Your task to perform on an android device: Open ESPN.com Image 0: 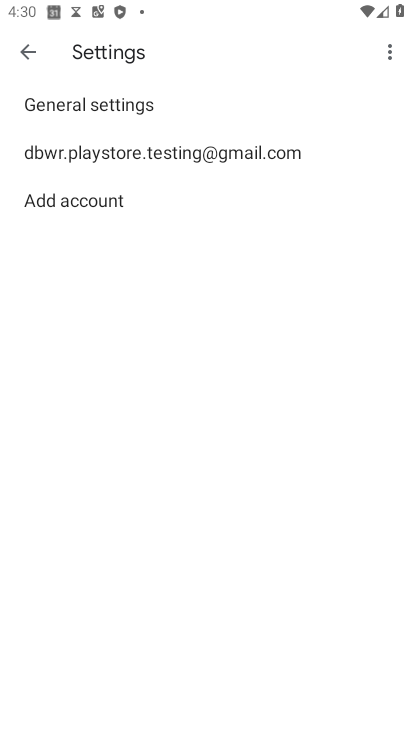
Step 0: click (22, 51)
Your task to perform on an android device: Open ESPN.com Image 1: 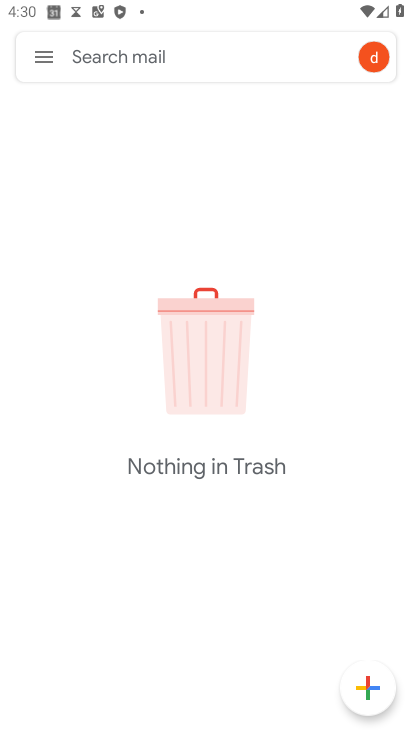
Step 1: click (22, 50)
Your task to perform on an android device: Open ESPN.com Image 2: 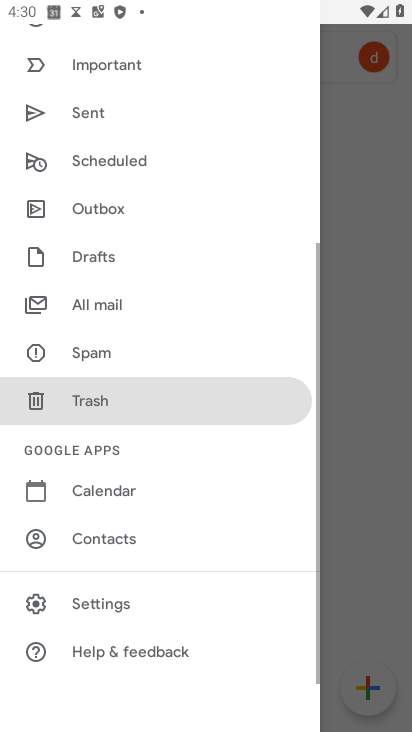
Step 2: click (18, 48)
Your task to perform on an android device: Open ESPN.com Image 3: 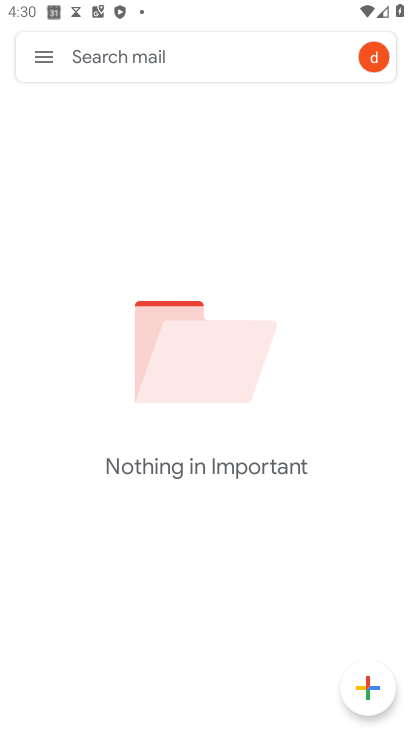
Step 3: press back button
Your task to perform on an android device: Open ESPN.com Image 4: 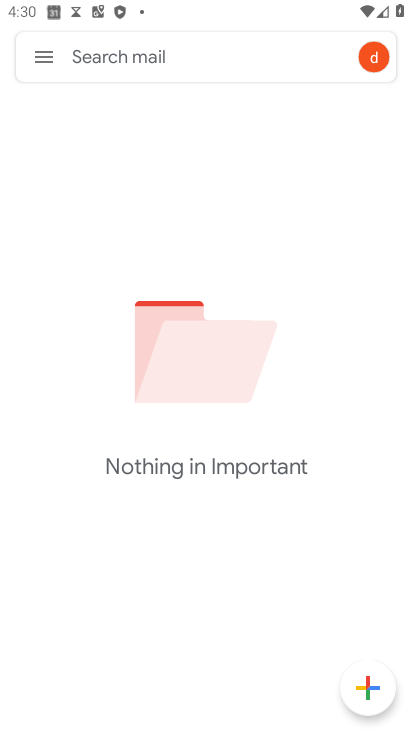
Step 4: press back button
Your task to perform on an android device: Open ESPN.com Image 5: 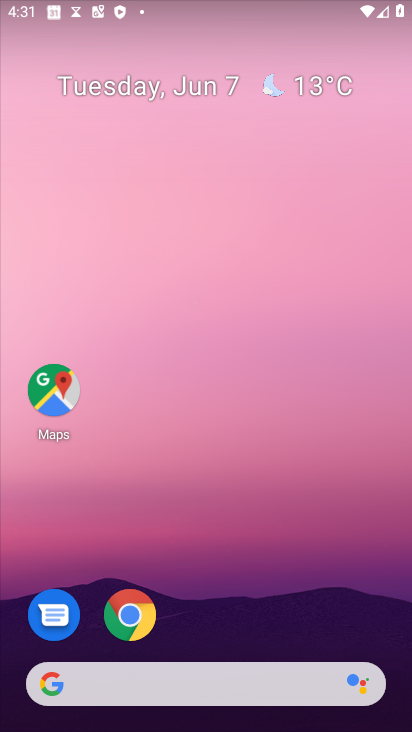
Step 5: click (98, 19)
Your task to perform on an android device: Open ESPN.com Image 6: 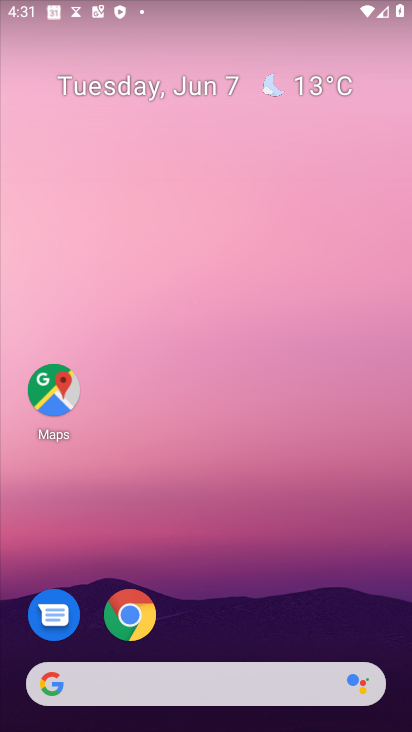
Step 6: click (76, 53)
Your task to perform on an android device: Open ESPN.com Image 7: 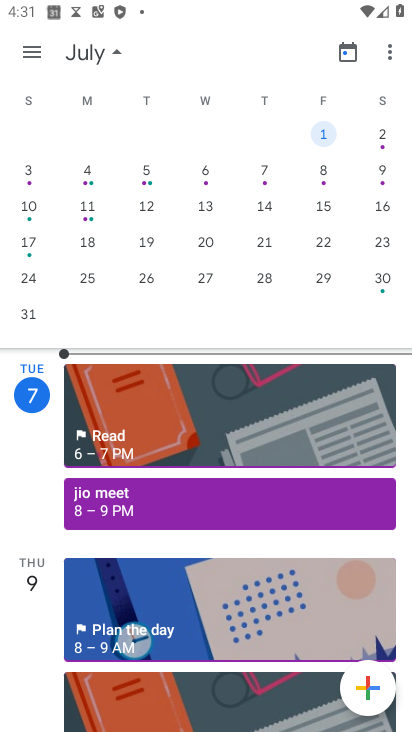
Step 7: click (186, 47)
Your task to perform on an android device: Open ESPN.com Image 8: 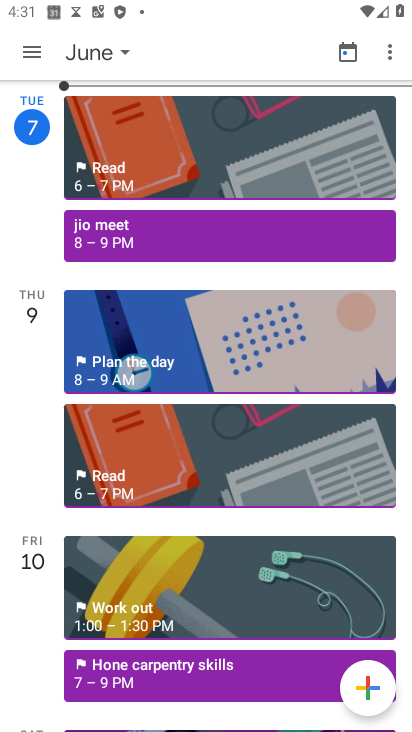
Step 8: click (155, 85)
Your task to perform on an android device: Open ESPN.com Image 9: 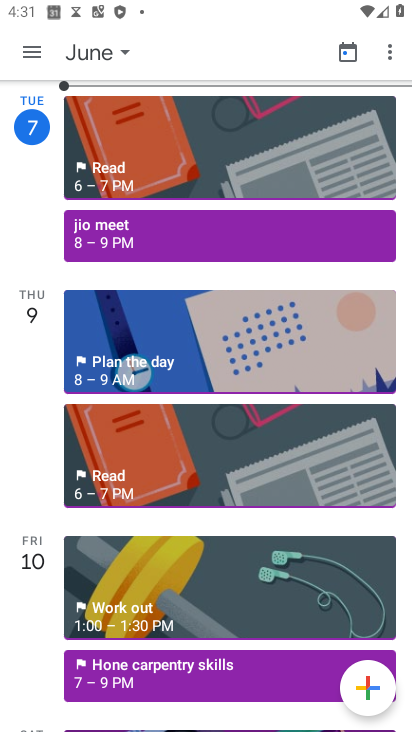
Step 9: click (208, 184)
Your task to perform on an android device: Open ESPN.com Image 10: 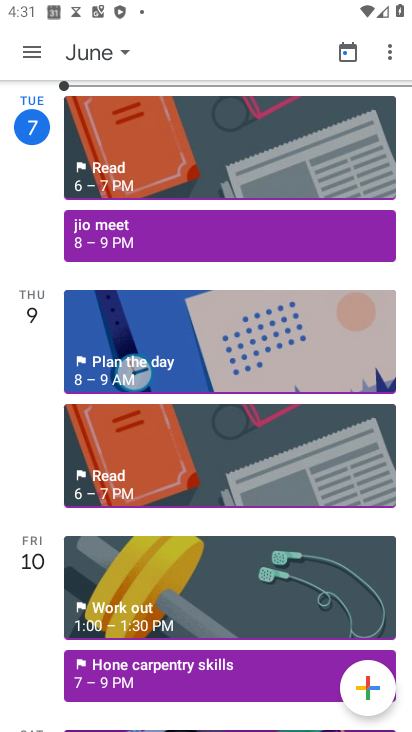
Step 10: drag from (180, 163) to (184, 258)
Your task to perform on an android device: Open ESPN.com Image 11: 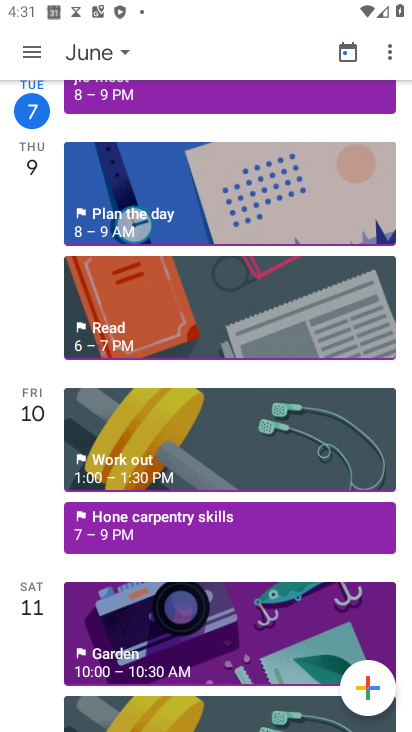
Step 11: press back button
Your task to perform on an android device: Open ESPN.com Image 12: 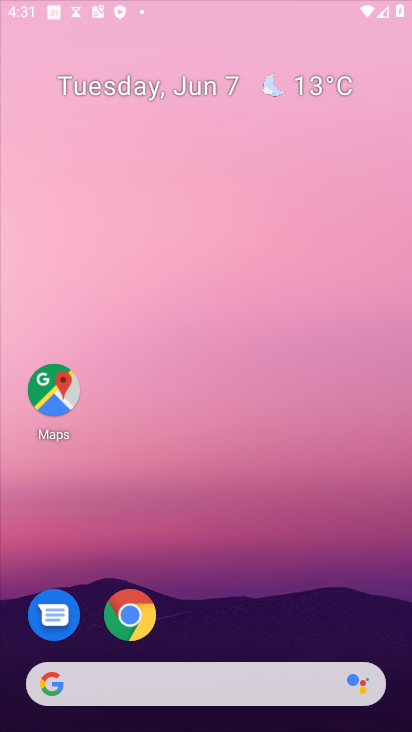
Step 12: press home button
Your task to perform on an android device: Open ESPN.com Image 13: 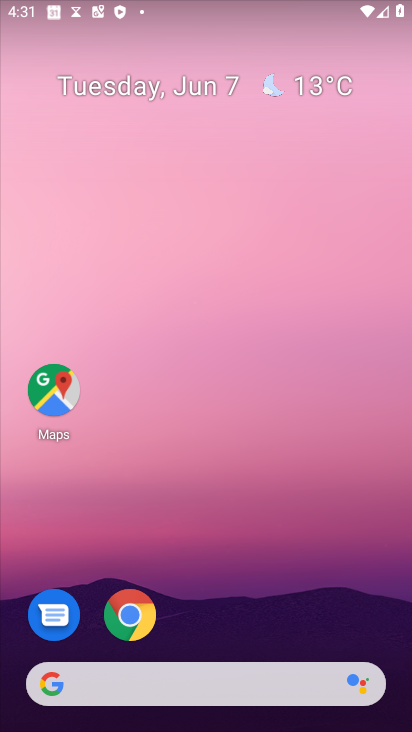
Step 13: press home button
Your task to perform on an android device: Open ESPN.com Image 14: 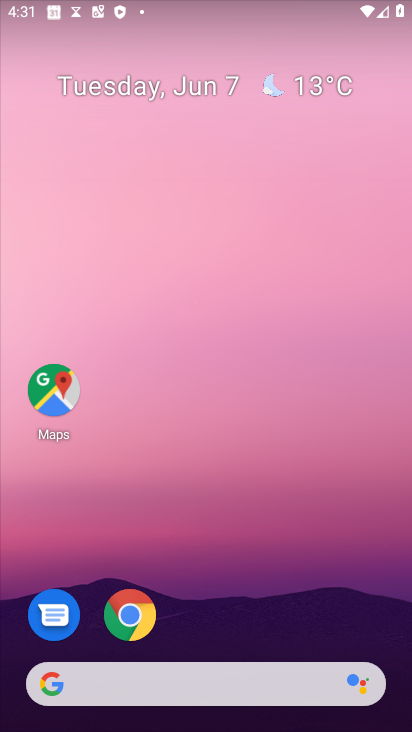
Step 14: press home button
Your task to perform on an android device: Open ESPN.com Image 15: 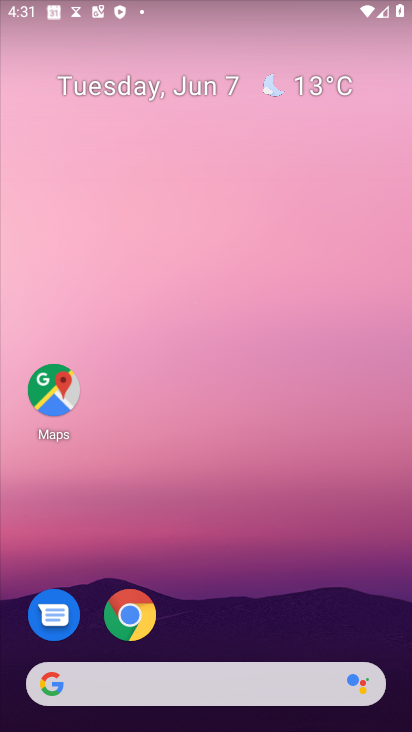
Step 15: press home button
Your task to perform on an android device: Open ESPN.com Image 16: 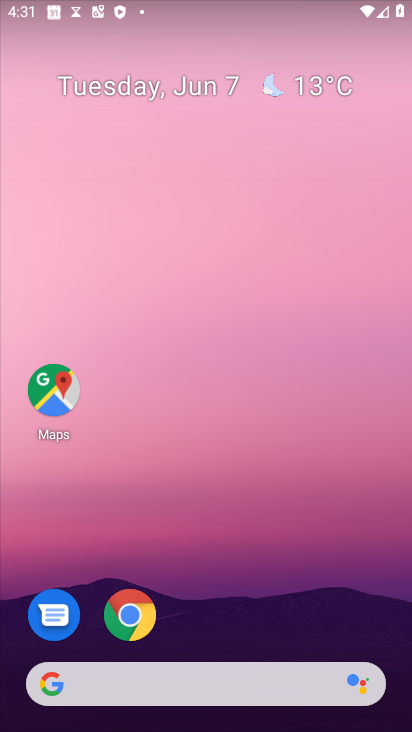
Step 16: drag from (214, 675) to (77, 38)
Your task to perform on an android device: Open ESPN.com Image 17: 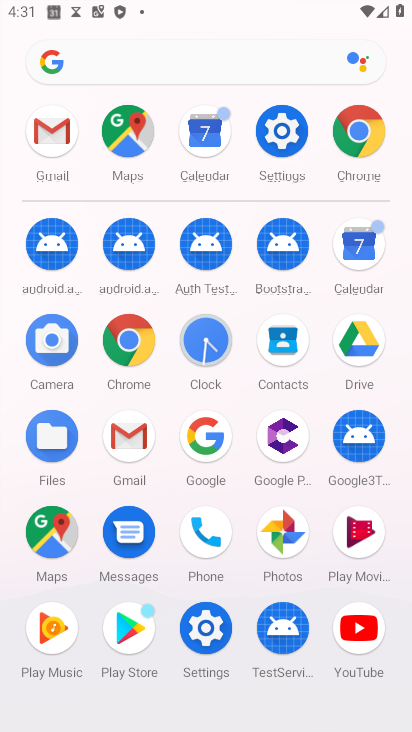
Step 17: drag from (162, 471) to (115, 30)
Your task to perform on an android device: Open ESPN.com Image 18: 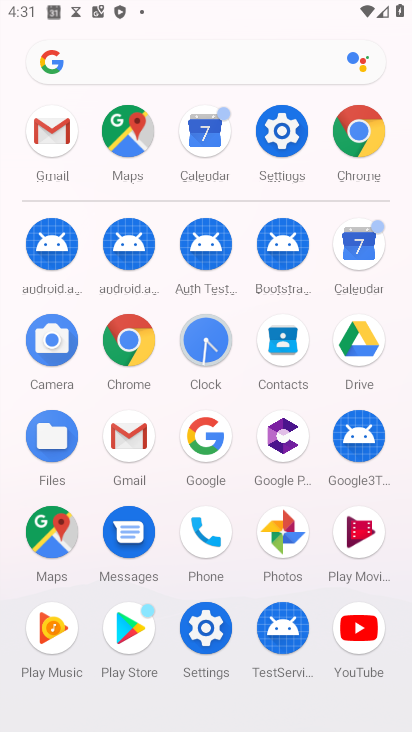
Step 18: click (362, 125)
Your task to perform on an android device: Open ESPN.com Image 19: 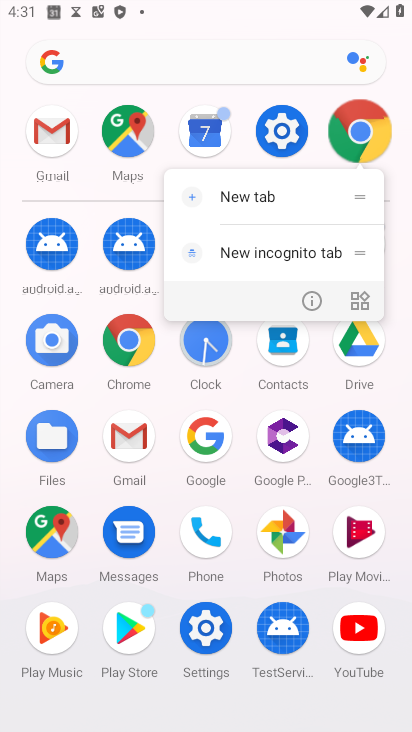
Step 19: click (356, 147)
Your task to perform on an android device: Open ESPN.com Image 20: 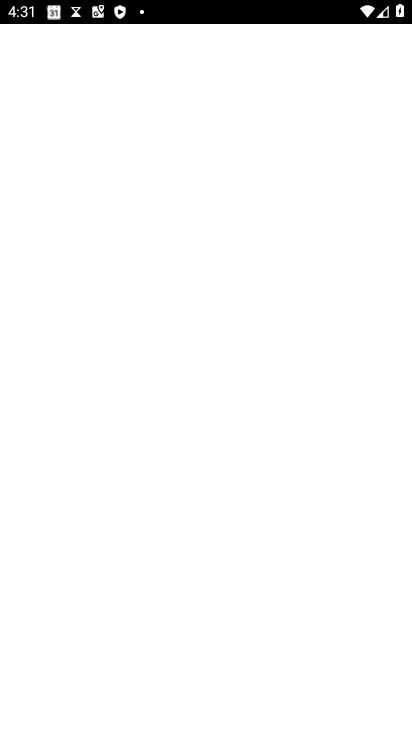
Step 20: click (351, 133)
Your task to perform on an android device: Open ESPN.com Image 21: 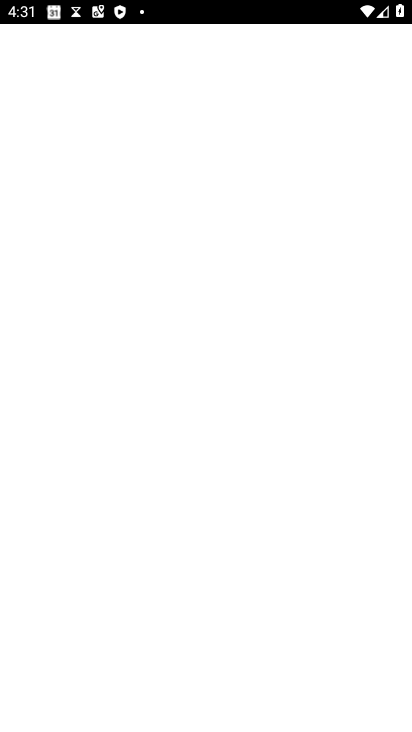
Step 21: click (351, 133)
Your task to perform on an android device: Open ESPN.com Image 22: 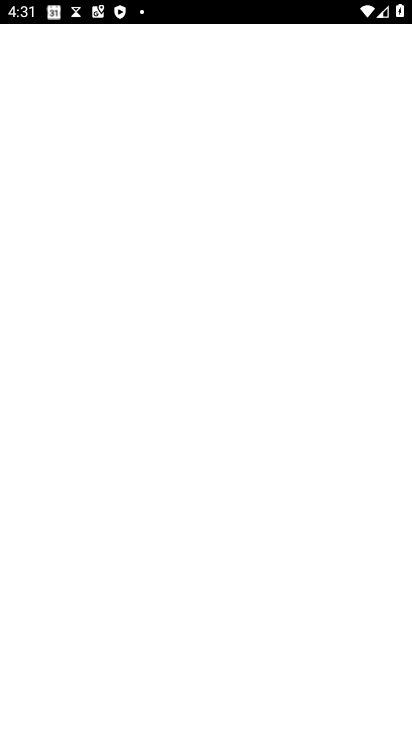
Step 22: click (351, 139)
Your task to perform on an android device: Open ESPN.com Image 23: 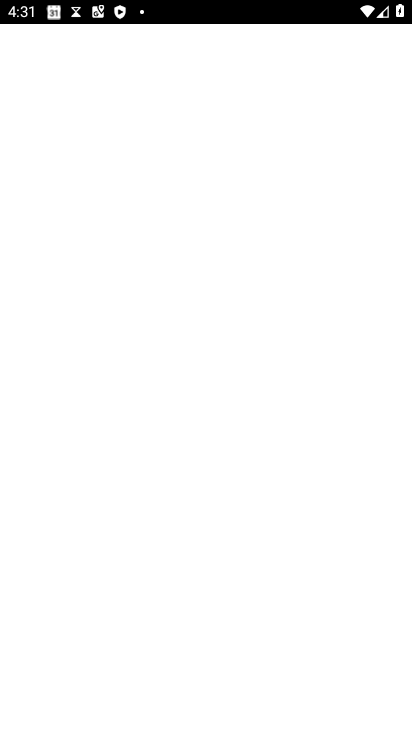
Step 23: click (351, 139)
Your task to perform on an android device: Open ESPN.com Image 24: 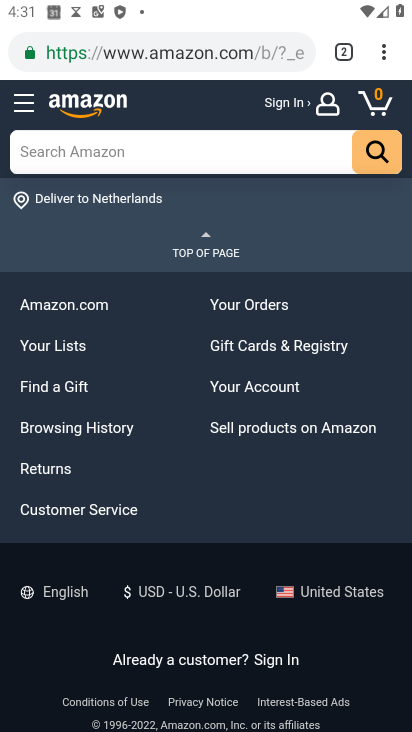
Step 24: drag from (380, 58) to (192, 125)
Your task to perform on an android device: Open ESPN.com Image 25: 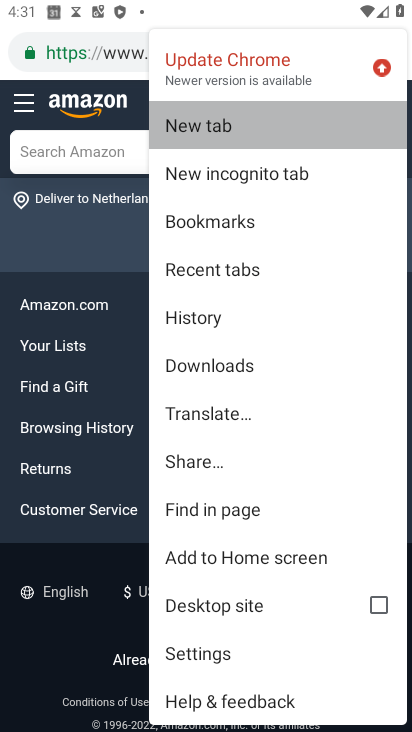
Step 25: click (191, 125)
Your task to perform on an android device: Open ESPN.com Image 26: 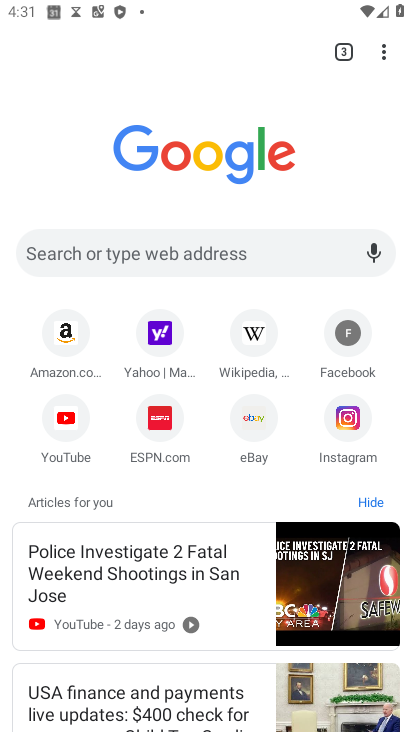
Step 26: click (158, 412)
Your task to perform on an android device: Open ESPN.com Image 27: 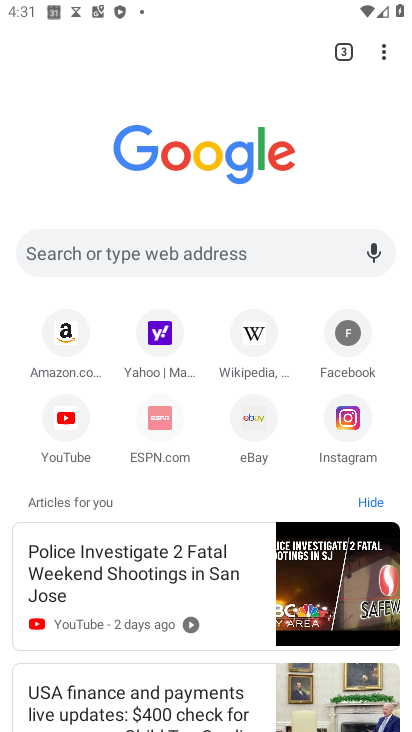
Step 27: click (158, 412)
Your task to perform on an android device: Open ESPN.com Image 28: 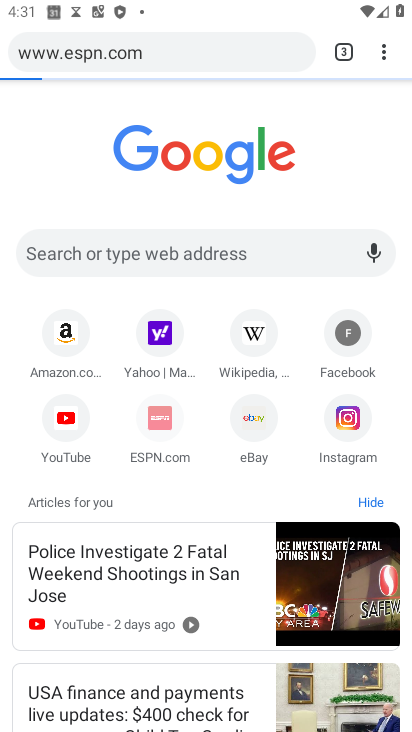
Step 28: click (160, 412)
Your task to perform on an android device: Open ESPN.com Image 29: 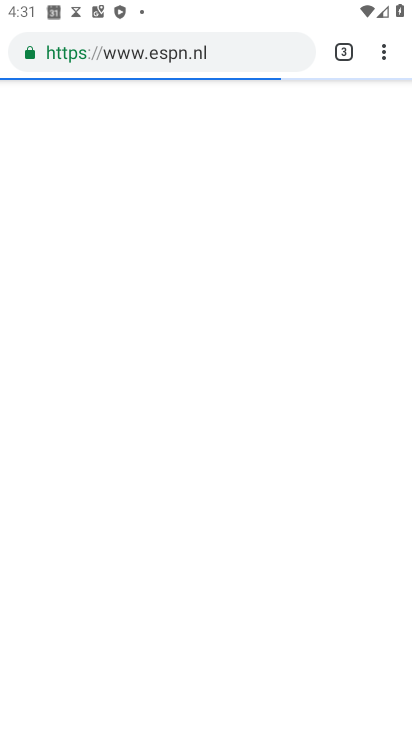
Step 29: task complete